Your task to perform on an android device: add a contact Image 0: 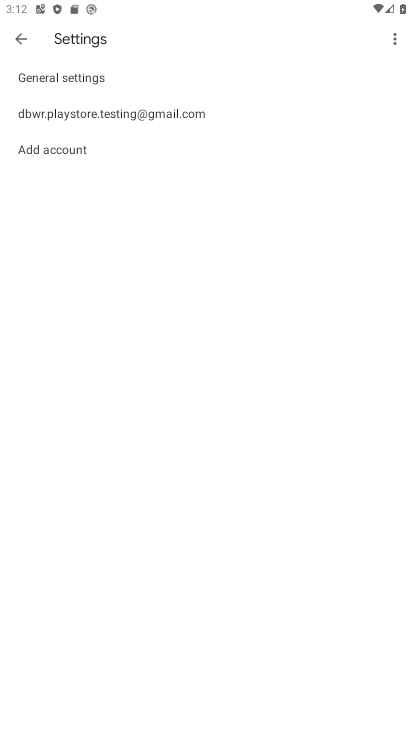
Step 0: drag from (261, 609) to (309, 192)
Your task to perform on an android device: add a contact Image 1: 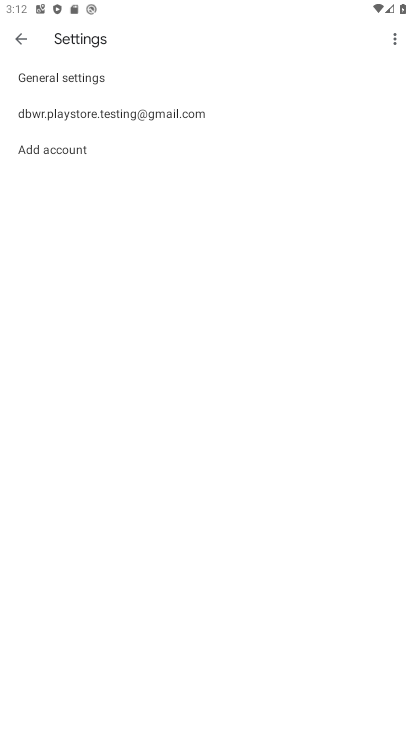
Step 1: press home button
Your task to perform on an android device: add a contact Image 2: 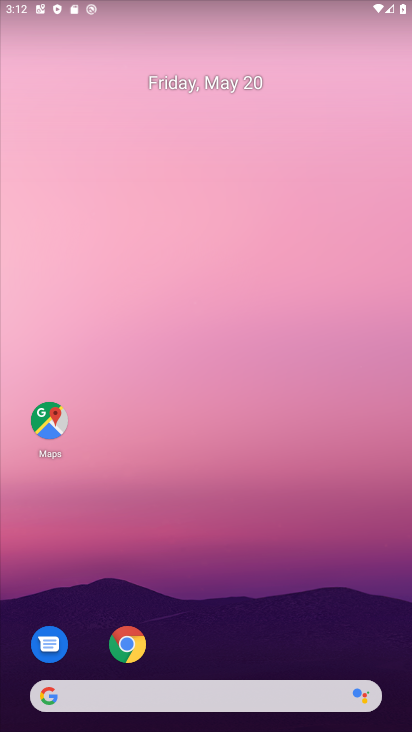
Step 2: drag from (248, 649) to (207, 18)
Your task to perform on an android device: add a contact Image 3: 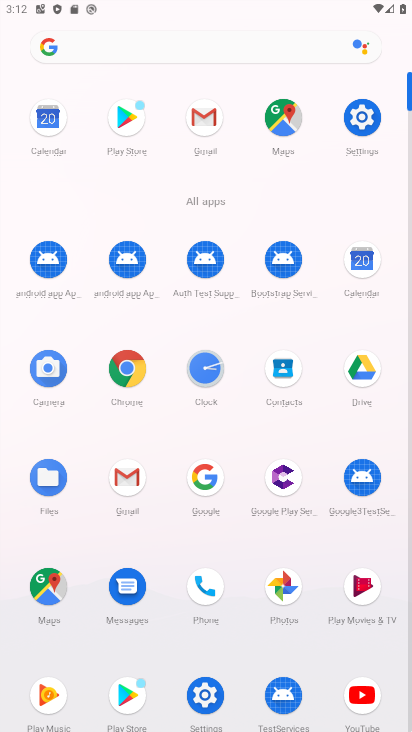
Step 3: click (355, 236)
Your task to perform on an android device: add a contact Image 4: 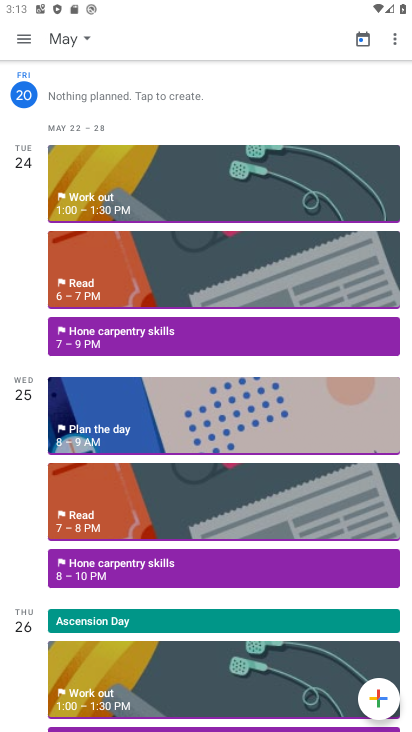
Step 4: press home button
Your task to perform on an android device: add a contact Image 5: 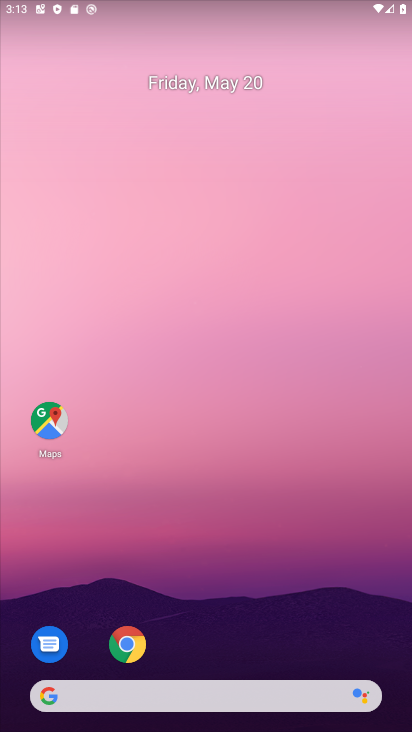
Step 5: drag from (270, 626) to (245, 290)
Your task to perform on an android device: add a contact Image 6: 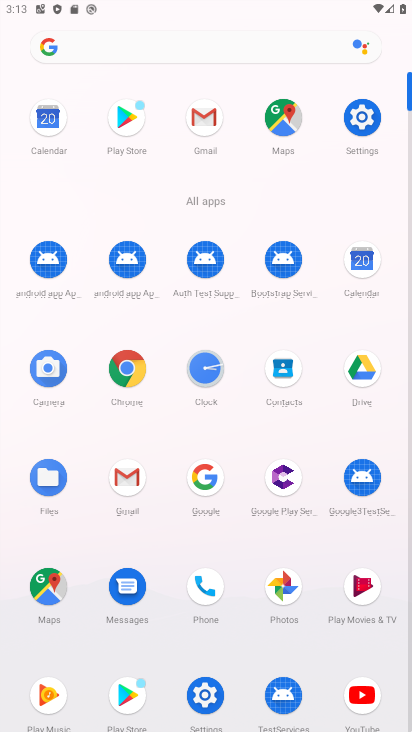
Step 6: click (285, 403)
Your task to perform on an android device: add a contact Image 7: 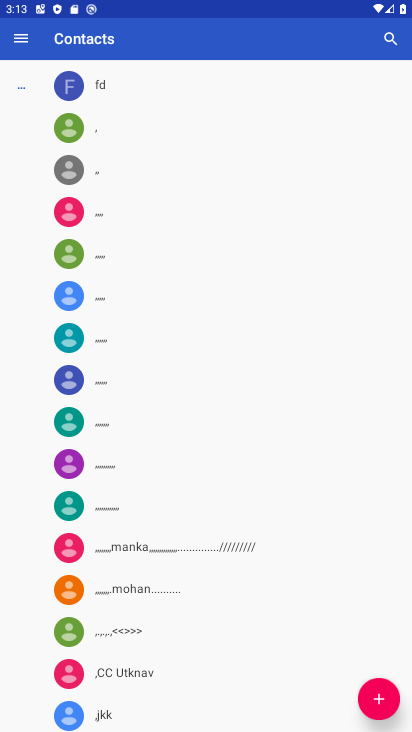
Step 7: click (368, 677)
Your task to perform on an android device: add a contact Image 8: 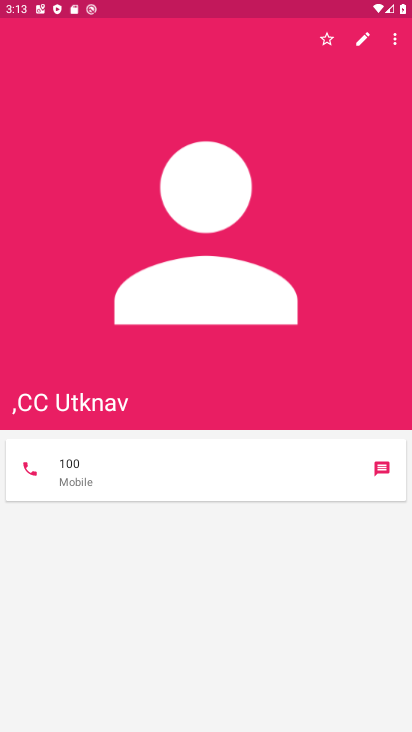
Step 8: task complete